Your task to perform on an android device: turn off smart reply in the gmail app Image 0: 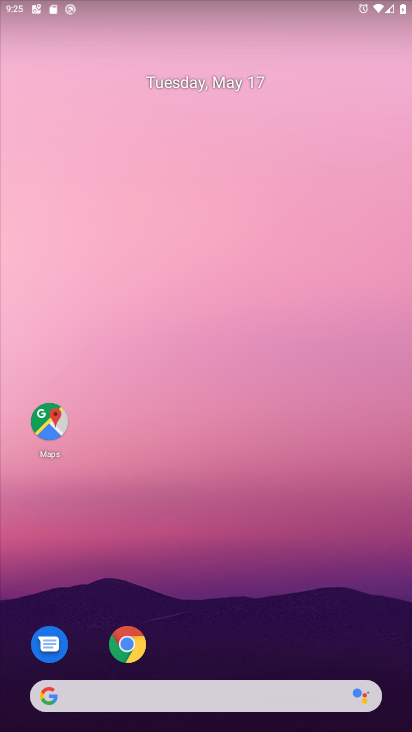
Step 0: drag from (213, 661) to (231, 79)
Your task to perform on an android device: turn off smart reply in the gmail app Image 1: 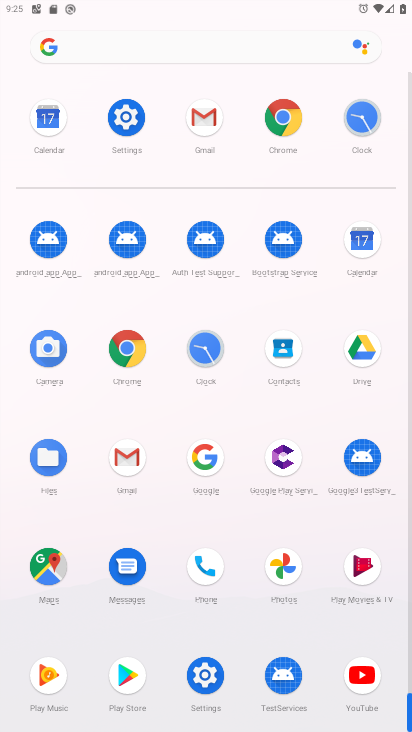
Step 1: click (203, 107)
Your task to perform on an android device: turn off smart reply in the gmail app Image 2: 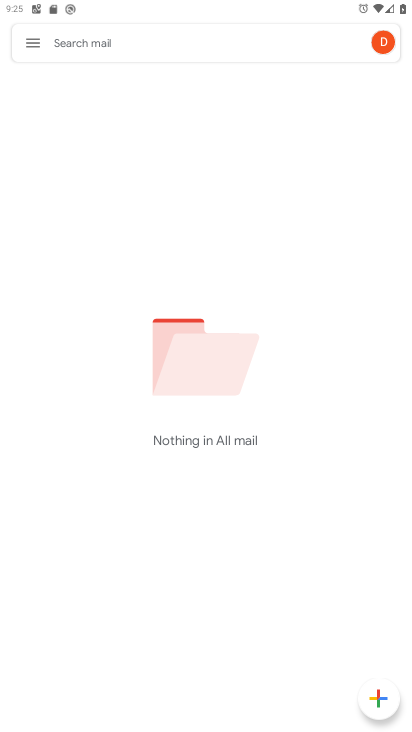
Step 2: click (36, 37)
Your task to perform on an android device: turn off smart reply in the gmail app Image 3: 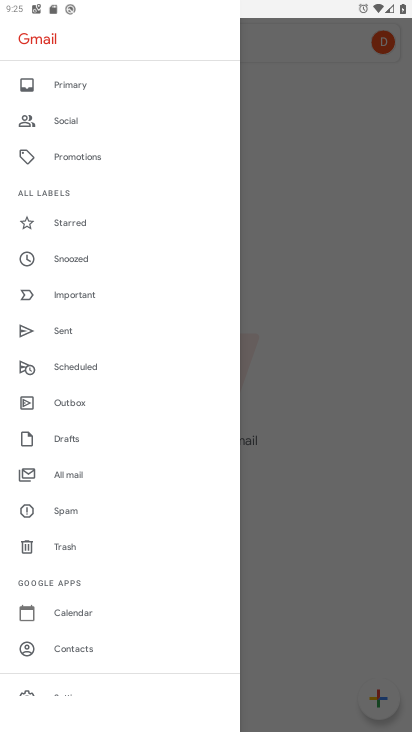
Step 3: drag from (109, 634) to (121, 125)
Your task to perform on an android device: turn off smart reply in the gmail app Image 4: 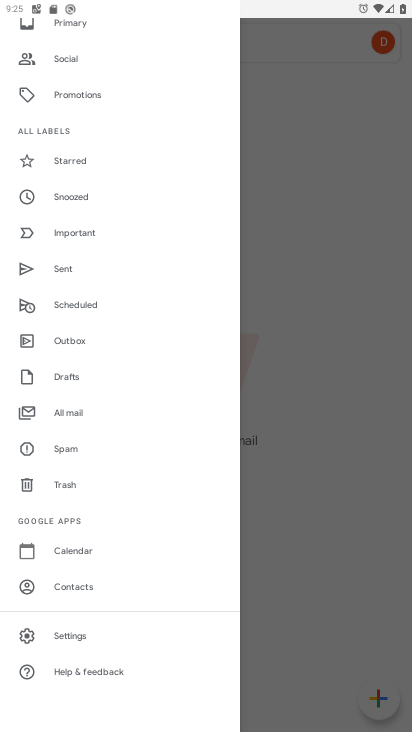
Step 4: click (92, 638)
Your task to perform on an android device: turn off smart reply in the gmail app Image 5: 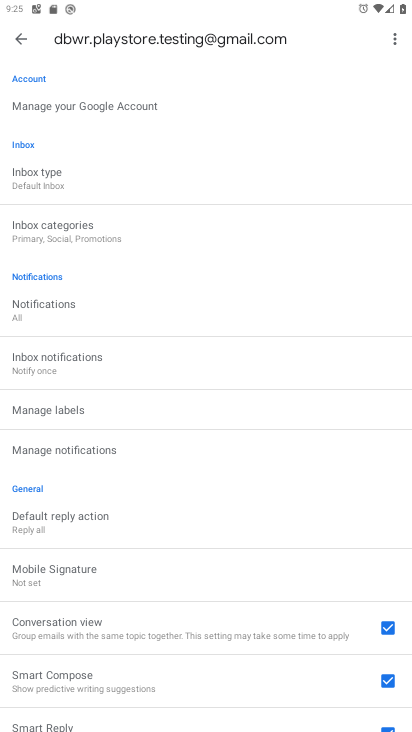
Step 5: drag from (134, 596) to (151, 141)
Your task to perform on an android device: turn off smart reply in the gmail app Image 6: 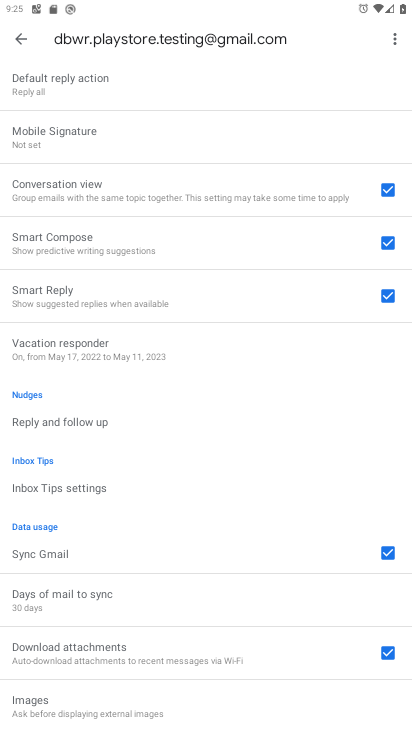
Step 6: click (388, 292)
Your task to perform on an android device: turn off smart reply in the gmail app Image 7: 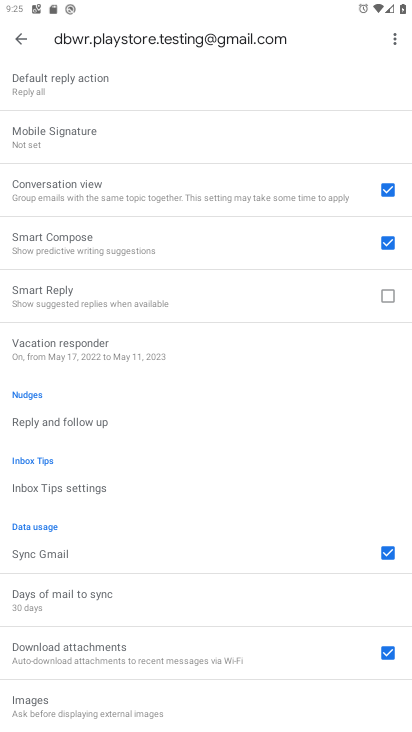
Step 7: task complete